Your task to perform on an android device: toggle javascript in the chrome app Image 0: 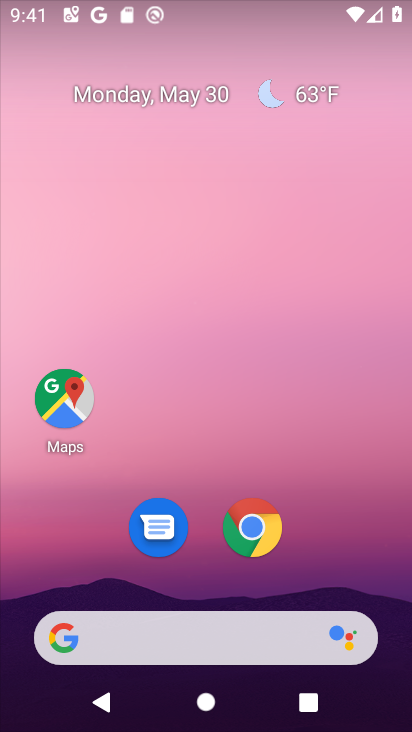
Step 0: drag from (298, 564) to (300, 303)
Your task to perform on an android device: toggle javascript in the chrome app Image 1: 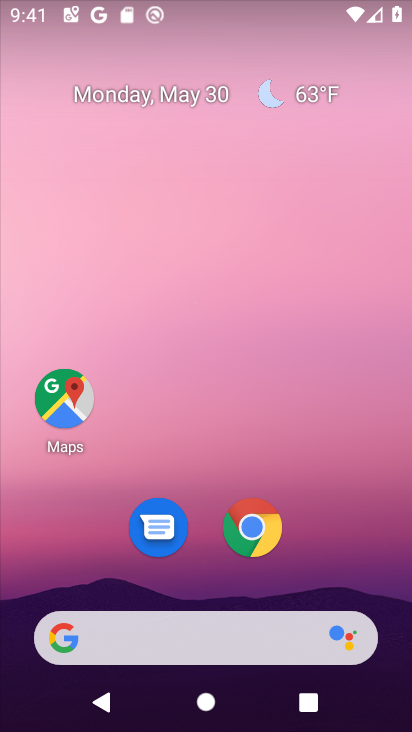
Step 1: click (253, 530)
Your task to perform on an android device: toggle javascript in the chrome app Image 2: 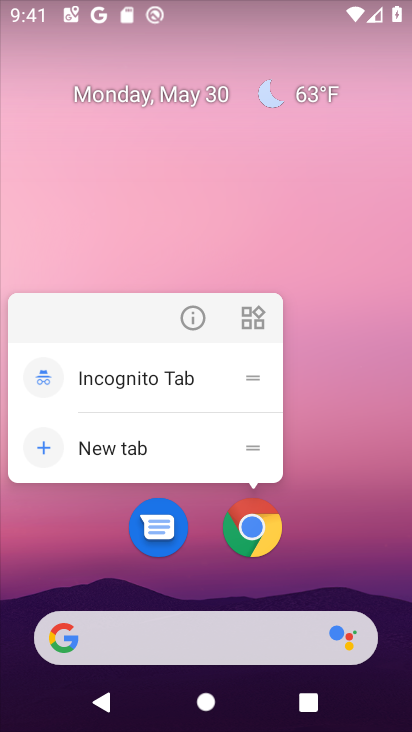
Step 2: click (252, 526)
Your task to perform on an android device: toggle javascript in the chrome app Image 3: 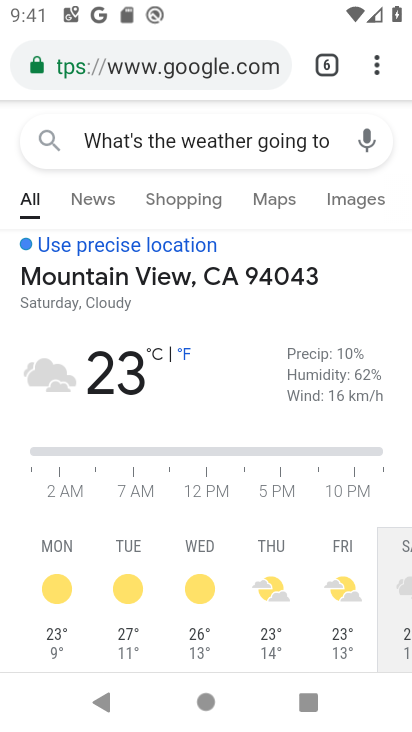
Step 3: click (379, 62)
Your task to perform on an android device: toggle javascript in the chrome app Image 4: 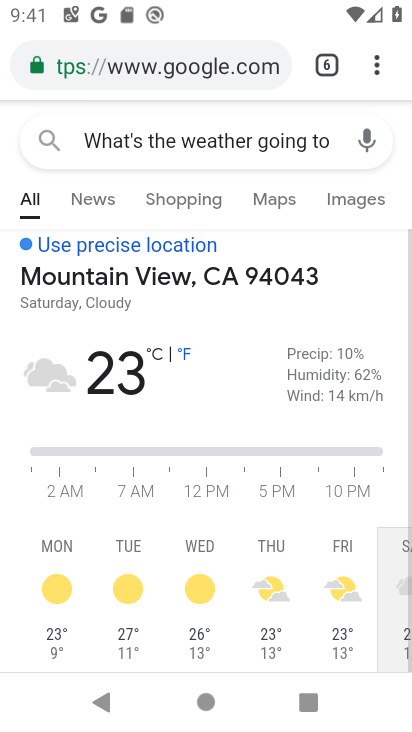
Step 4: click (369, 65)
Your task to perform on an android device: toggle javascript in the chrome app Image 5: 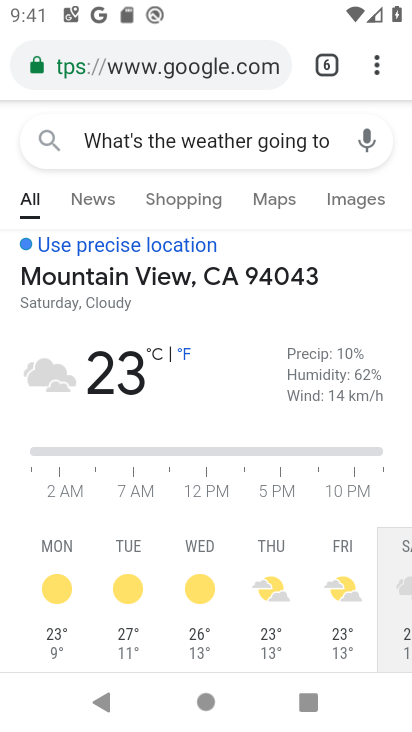
Step 5: click (369, 65)
Your task to perform on an android device: toggle javascript in the chrome app Image 6: 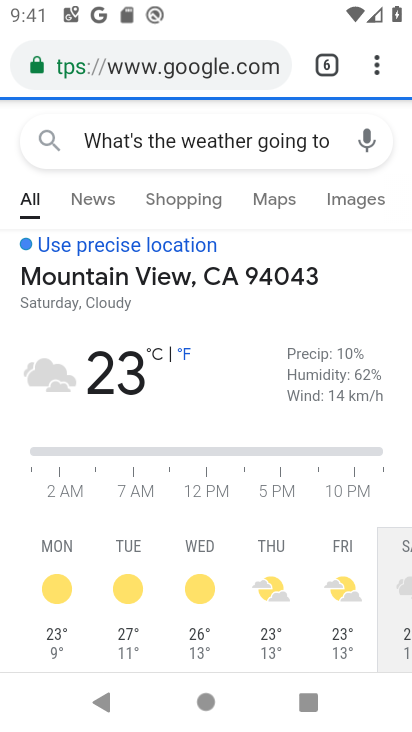
Step 6: click (374, 62)
Your task to perform on an android device: toggle javascript in the chrome app Image 7: 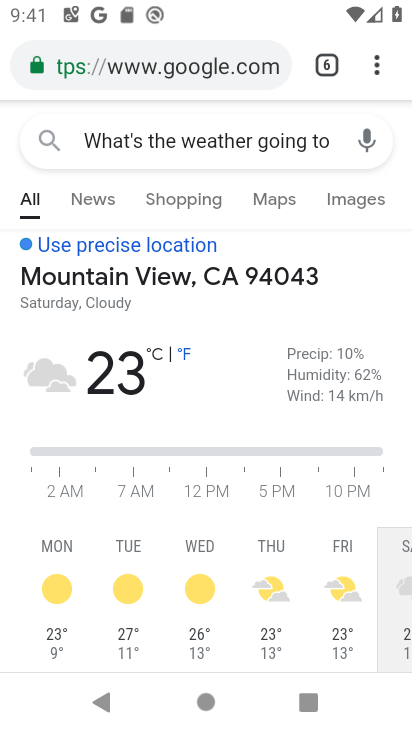
Step 7: click (374, 62)
Your task to perform on an android device: toggle javascript in the chrome app Image 8: 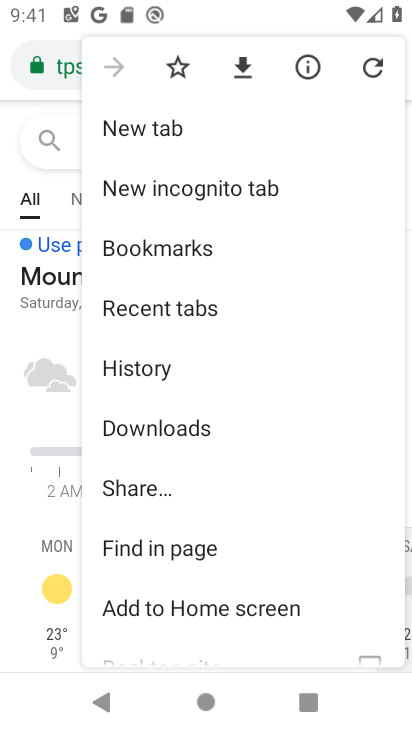
Step 8: drag from (227, 553) to (223, 256)
Your task to perform on an android device: toggle javascript in the chrome app Image 9: 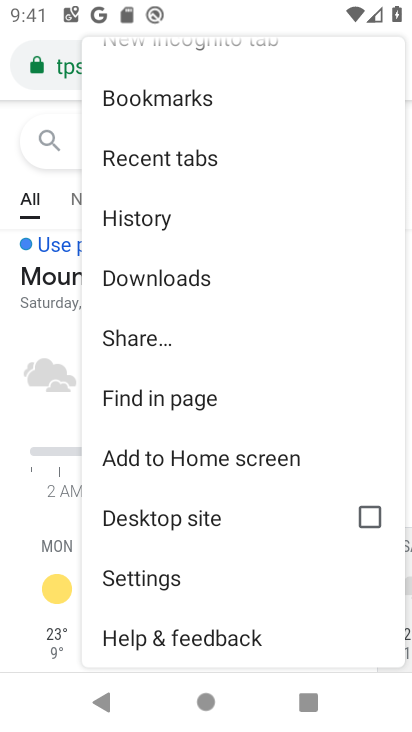
Step 9: click (164, 579)
Your task to perform on an android device: toggle javascript in the chrome app Image 10: 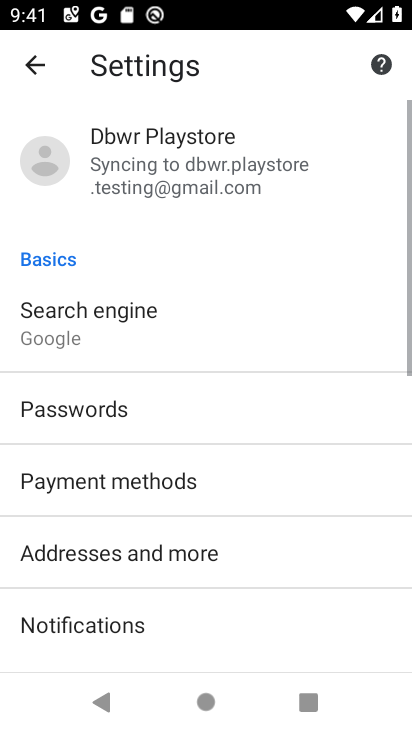
Step 10: drag from (165, 561) to (206, 288)
Your task to perform on an android device: toggle javascript in the chrome app Image 11: 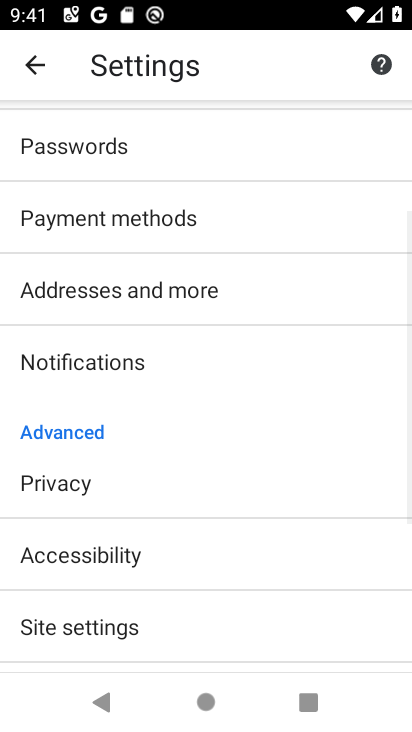
Step 11: drag from (181, 593) to (222, 371)
Your task to perform on an android device: toggle javascript in the chrome app Image 12: 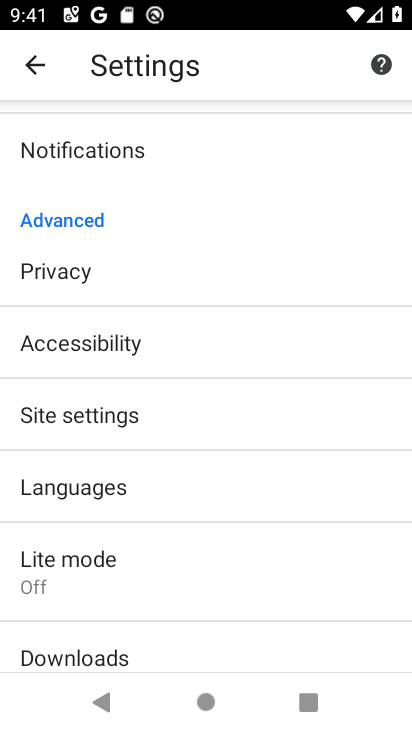
Step 12: click (119, 394)
Your task to perform on an android device: toggle javascript in the chrome app Image 13: 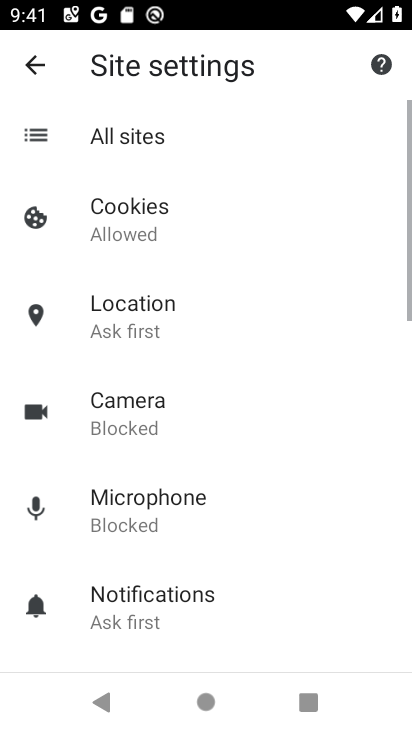
Step 13: drag from (156, 590) to (194, 299)
Your task to perform on an android device: toggle javascript in the chrome app Image 14: 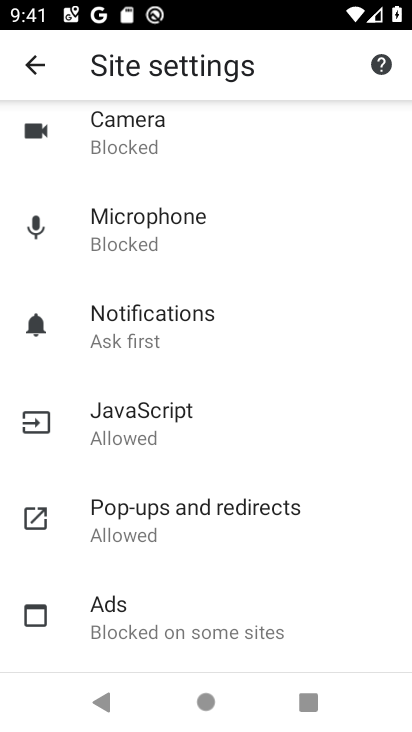
Step 14: click (173, 421)
Your task to perform on an android device: toggle javascript in the chrome app Image 15: 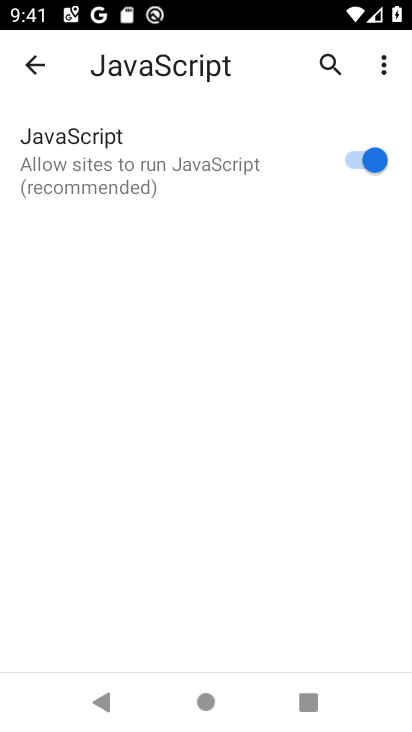
Step 15: click (348, 158)
Your task to perform on an android device: toggle javascript in the chrome app Image 16: 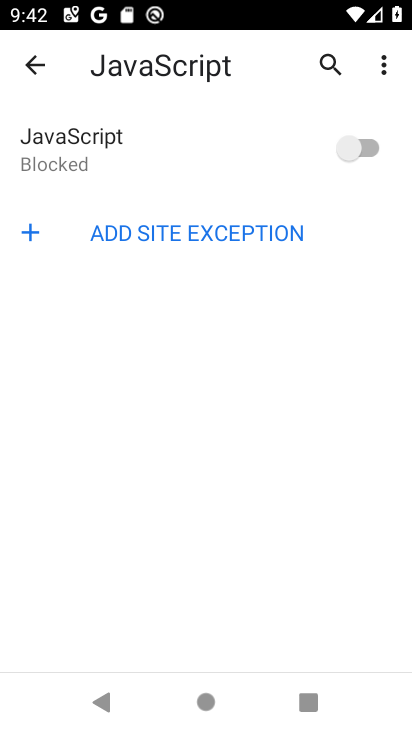
Step 16: task complete